Your task to perform on an android device: find snoozed emails in the gmail app Image 0: 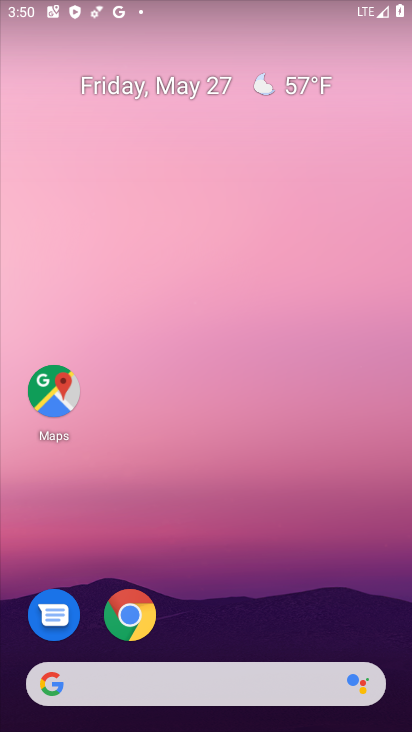
Step 0: drag from (207, 641) to (245, 162)
Your task to perform on an android device: find snoozed emails in the gmail app Image 1: 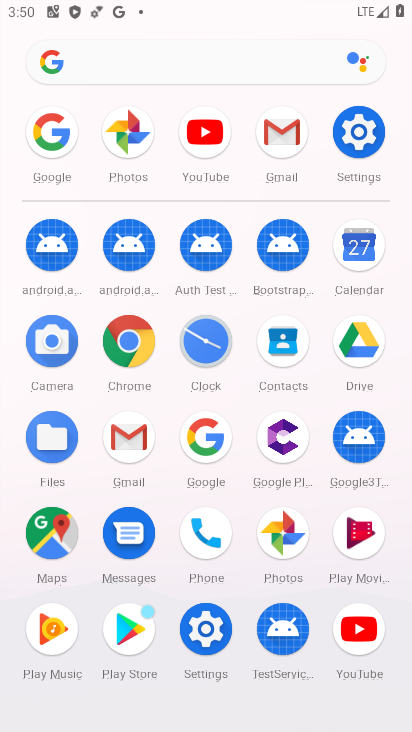
Step 1: click (281, 148)
Your task to perform on an android device: find snoozed emails in the gmail app Image 2: 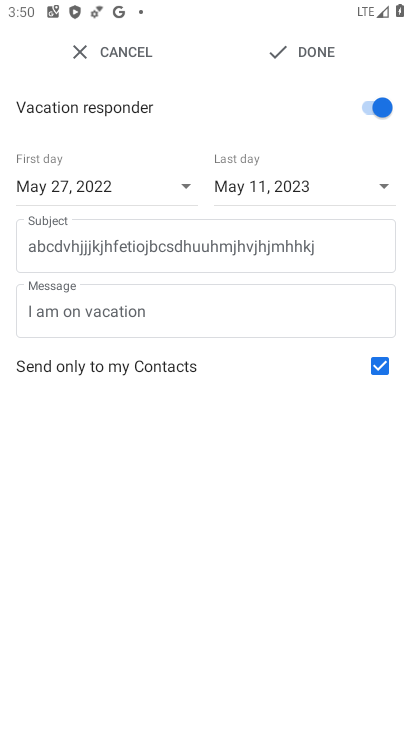
Step 2: press back button
Your task to perform on an android device: find snoozed emails in the gmail app Image 3: 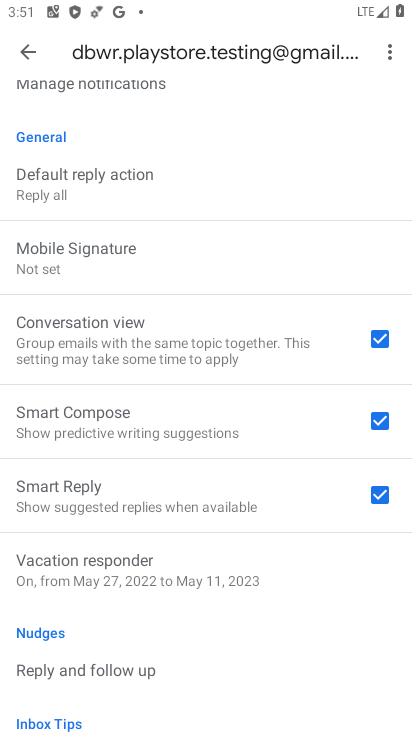
Step 3: drag from (121, 547) to (89, 651)
Your task to perform on an android device: find snoozed emails in the gmail app Image 4: 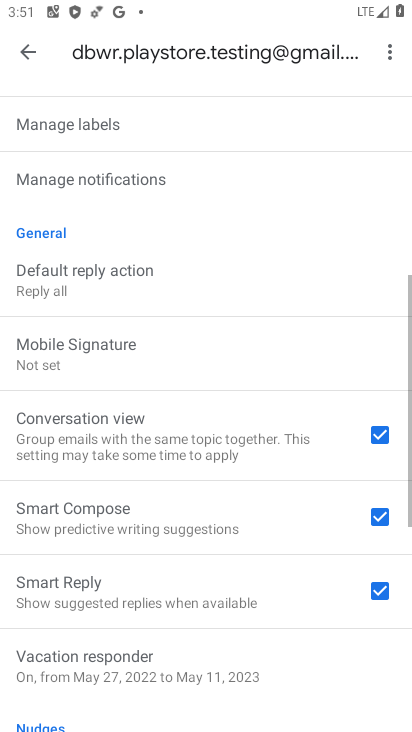
Step 4: drag from (116, 218) to (112, 595)
Your task to perform on an android device: find snoozed emails in the gmail app Image 5: 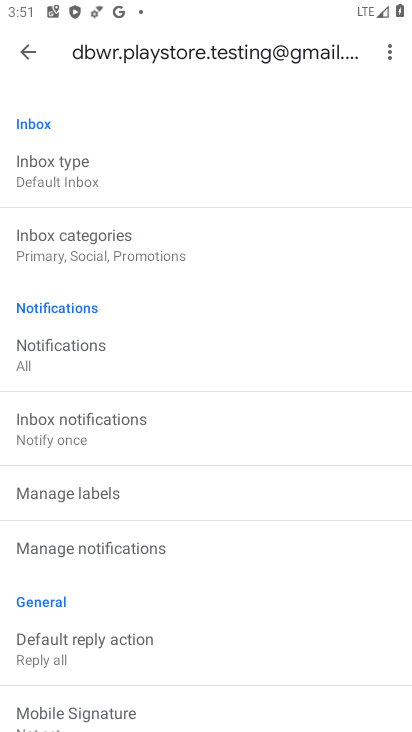
Step 5: click (21, 53)
Your task to perform on an android device: find snoozed emails in the gmail app Image 6: 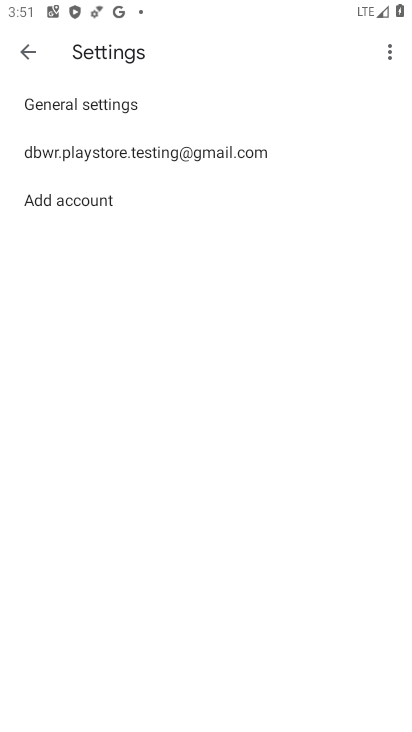
Step 6: click (27, 58)
Your task to perform on an android device: find snoozed emails in the gmail app Image 7: 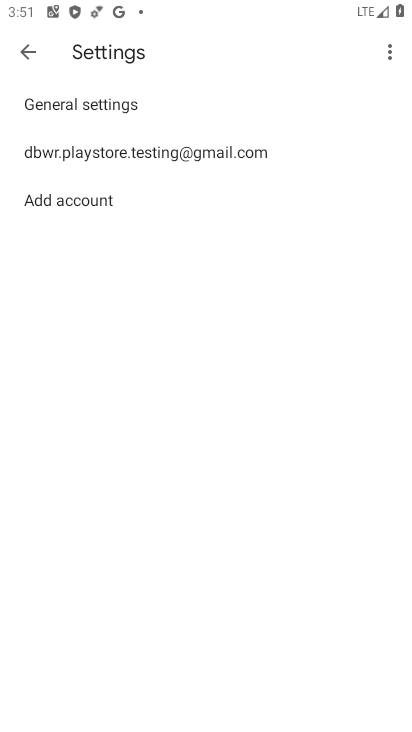
Step 7: click (33, 56)
Your task to perform on an android device: find snoozed emails in the gmail app Image 8: 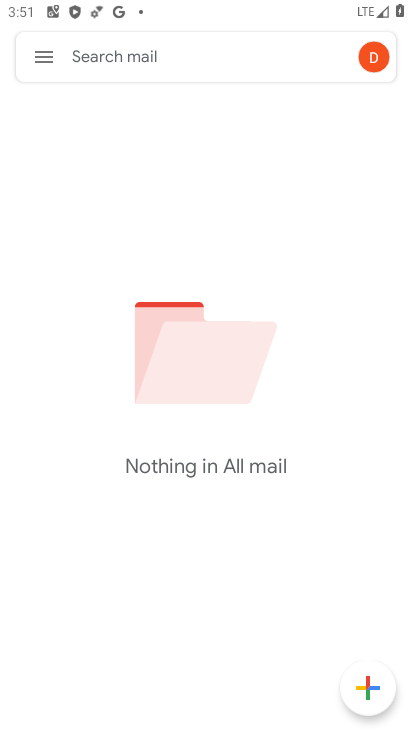
Step 8: click (45, 59)
Your task to perform on an android device: find snoozed emails in the gmail app Image 9: 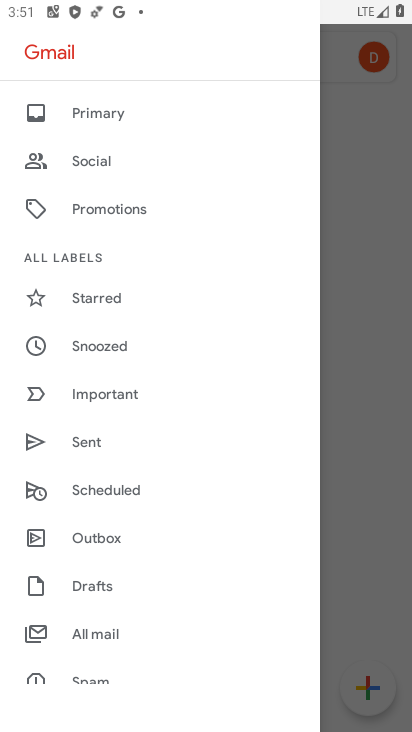
Step 9: click (103, 351)
Your task to perform on an android device: find snoozed emails in the gmail app Image 10: 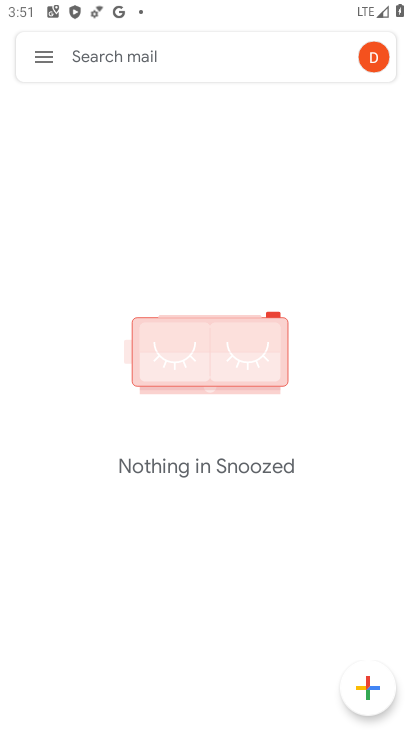
Step 10: task complete